Your task to perform on an android device: Go to accessibility settings Image 0: 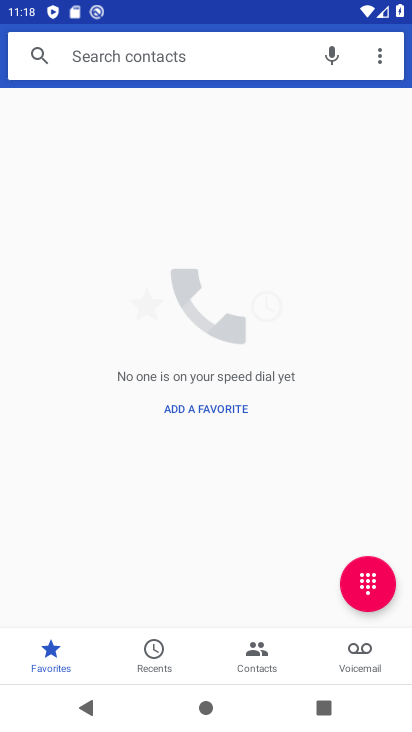
Step 0: press home button
Your task to perform on an android device: Go to accessibility settings Image 1: 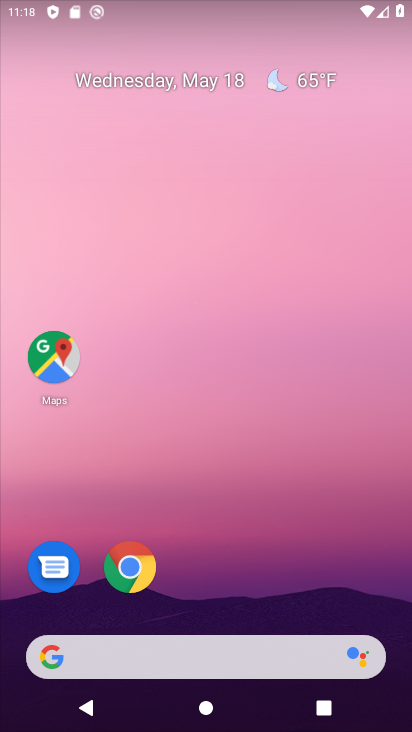
Step 1: drag from (246, 596) to (231, 95)
Your task to perform on an android device: Go to accessibility settings Image 2: 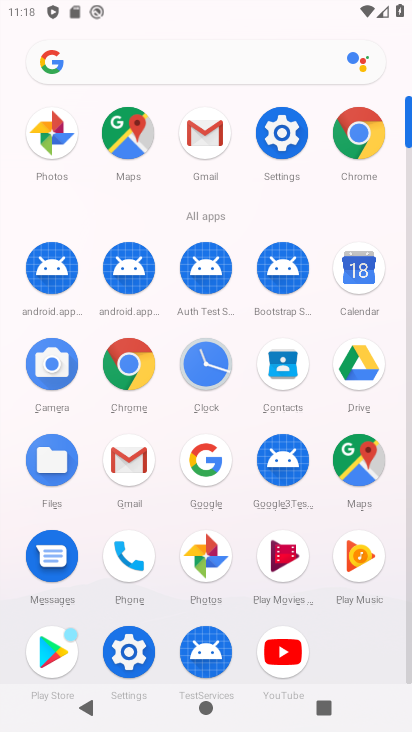
Step 2: click (282, 133)
Your task to perform on an android device: Go to accessibility settings Image 3: 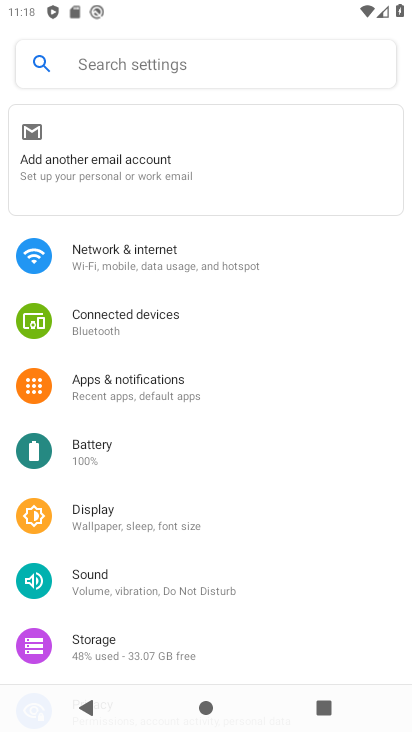
Step 3: drag from (233, 620) to (227, 220)
Your task to perform on an android device: Go to accessibility settings Image 4: 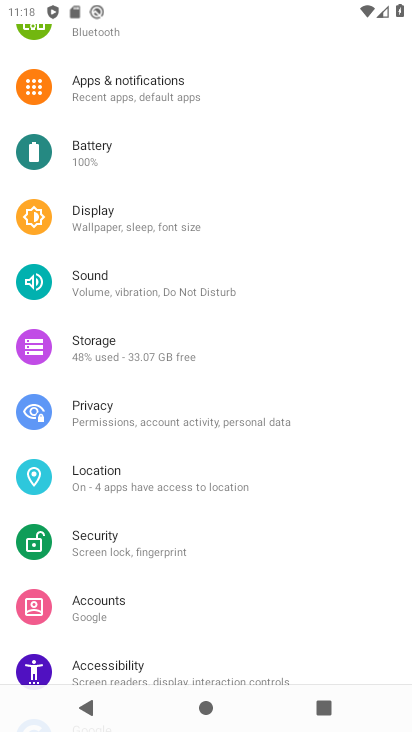
Step 4: click (166, 665)
Your task to perform on an android device: Go to accessibility settings Image 5: 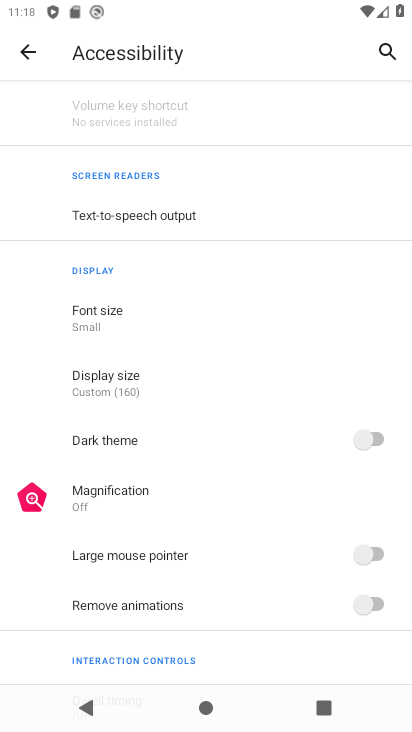
Step 5: task complete